Your task to perform on an android device: turn off location Image 0: 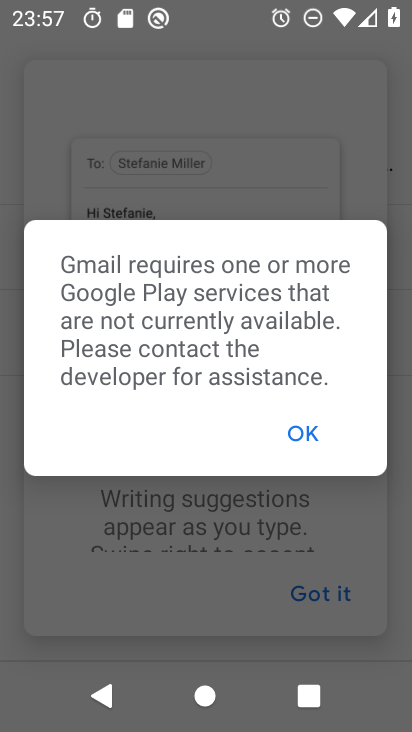
Step 0: press home button
Your task to perform on an android device: turn off location Image 1: 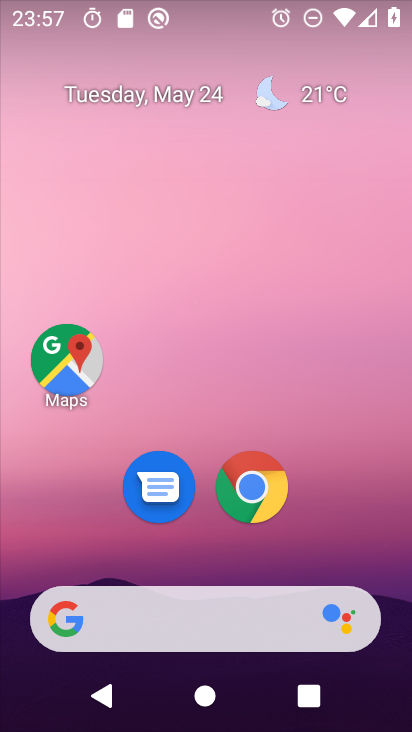
Step 1: drag from (356, 578) to (410, 259)
Your task to perform on an android device: turn off location Image 2: 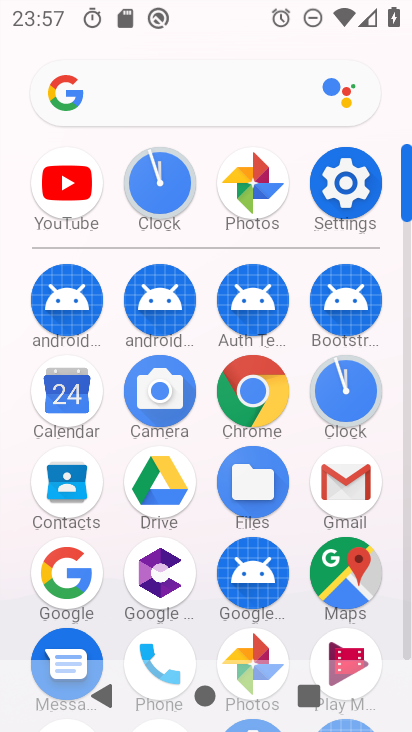
Step 2: click (348, 180)
Your task to perform on an android device: turn off location Image 3: 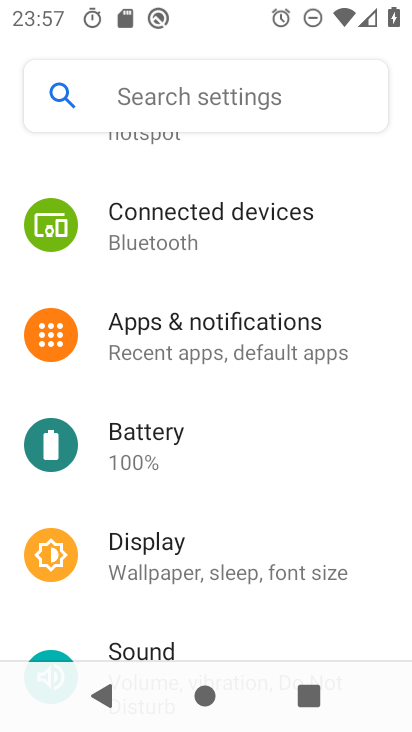
Step 3: drag from (257, 513) to (270, 264)
Your task to perform on an android device: turn off location Image 4: 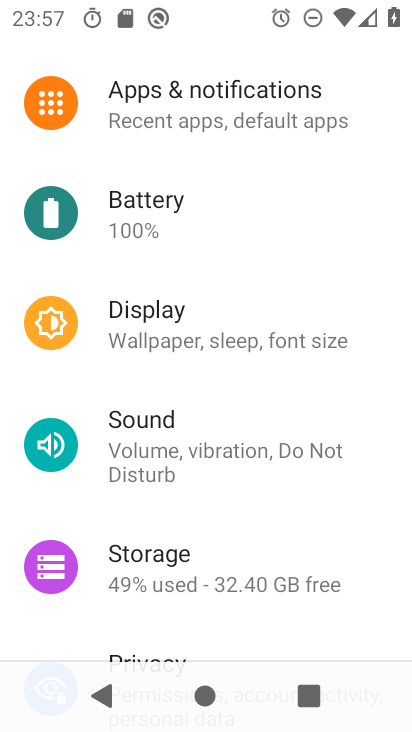
Step 4: drag from (225, 514) to (210, 181)
Your task to perform on an android device: turn off location Image 5: 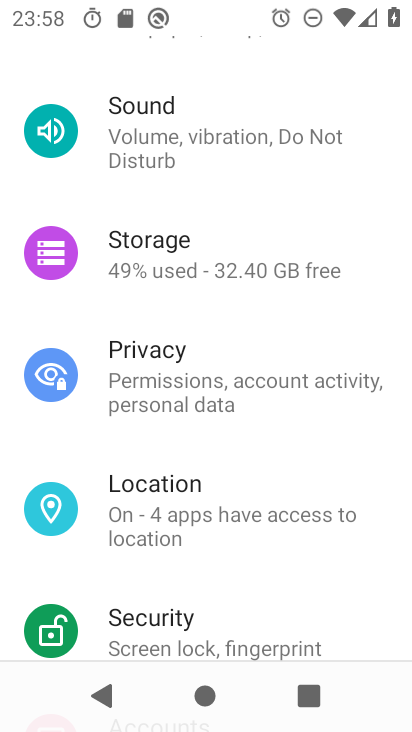
Step 5: click (152, 519)
Your task to perform on an android device: turn off location Image 6: 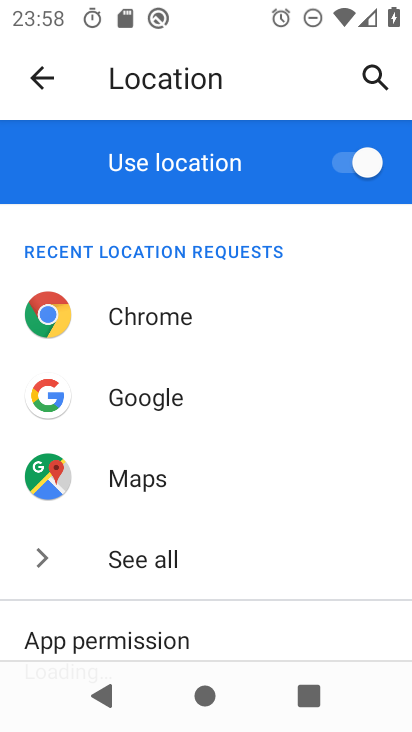
Step 6: click (359, 170)
Your task to perform on an android device: turn off location Image 7: 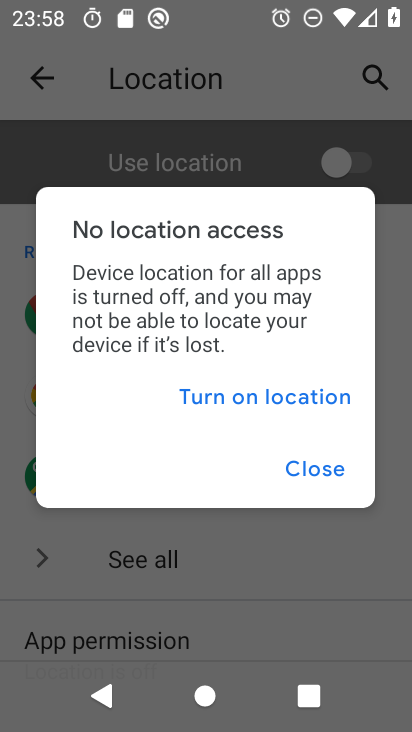
Step 7: click (317, 474)
Your task to perform on an android device: turn off location Image 8: 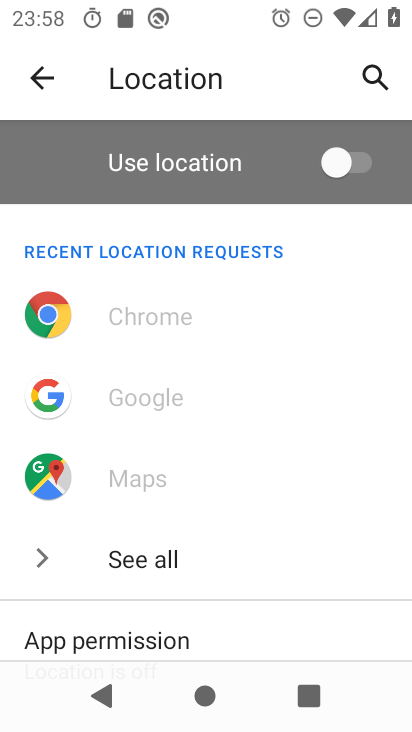
Step 8: task complete